Your task to perform on an android device: find which apps use the phone's location Image 0: 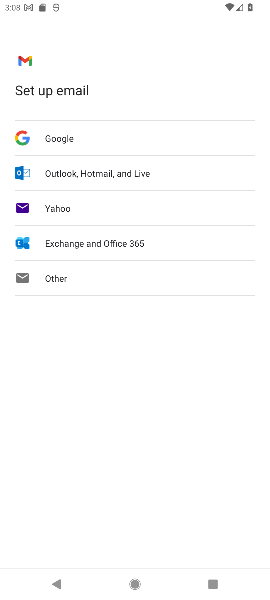
Step 0: press home button
Your task to perform on an android device: find which apps use the phone's location Image 1: 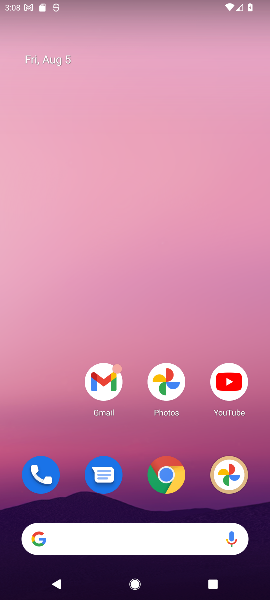
Step 1: drag from (252, 582) to (219, 109)
Your task to perform on an android device: find which apps use the phone's location Image 2: 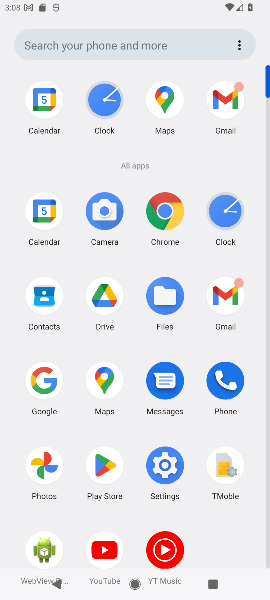
Step 2: click (173, 448)
Your task to perform on an android device: find which apps use the phone's location Image 3: 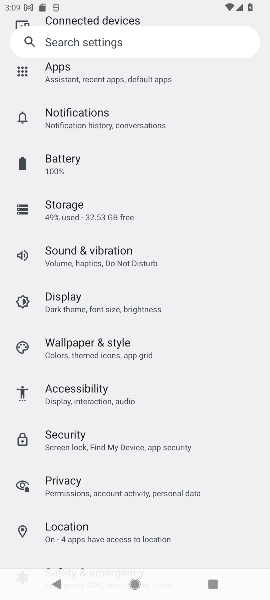
Step 3: click (76, 524)
Your task to perform on an android device: find which apps use the phone's location Image 4: 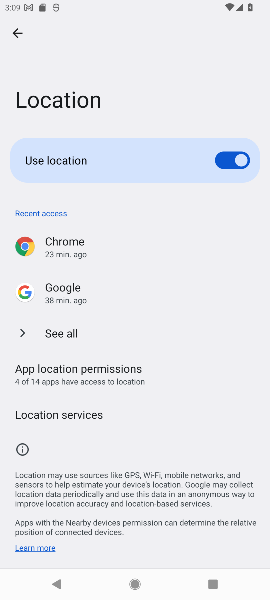
Step 4: drag from (184, 540) to (199, 238)
Your task to perform on an android device: find which apps use the phone's location Image 5: 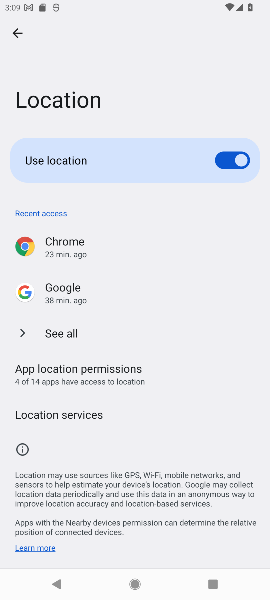
Step 5: click (56, 374)
Your task to perform on an android device: find which apps use the phone's location Image 6: 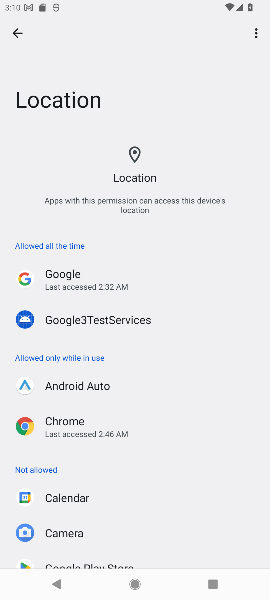
Step 6: task complete